Your task to perform on an android device: find which apps use the phone's location Image 0: 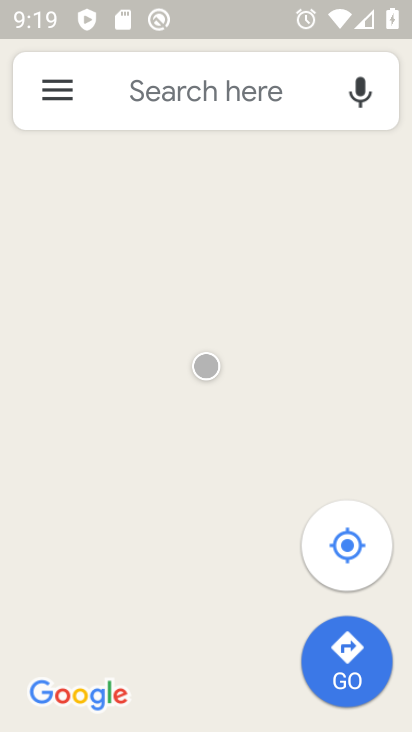
Step 0: press home button
Your task to perform on an android device: find which apps use the phone's location Image 1: 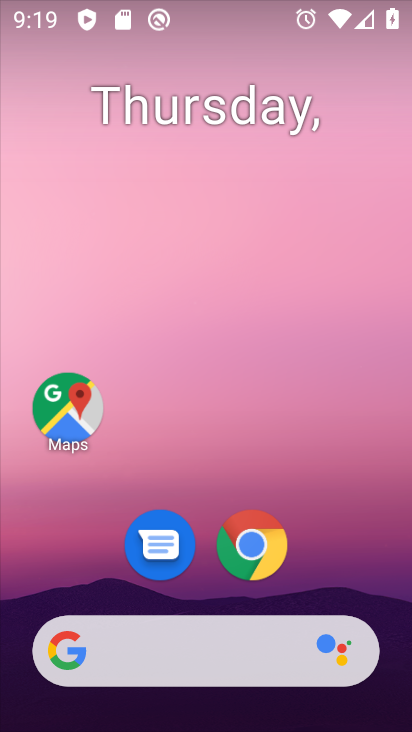
Step 1: drag from (347, 506) to (266, 21)
Your task to perform on an android device: find which apps use the phone's location Image 2: 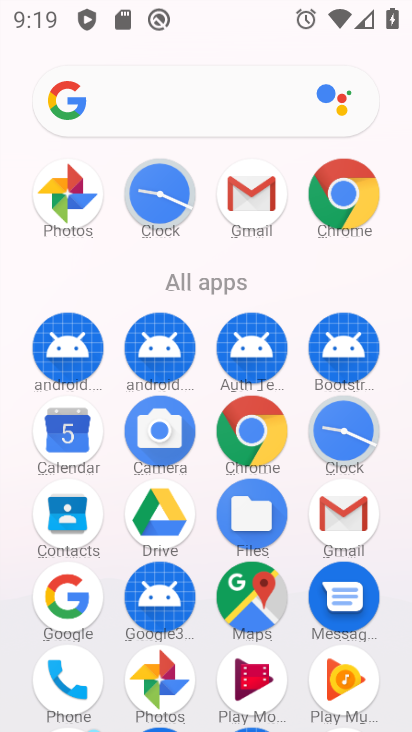
Step 2: drag from (216, 559) to (186, 171)
Your task to perform on an android device: find which apps use the phone's location Image 3: 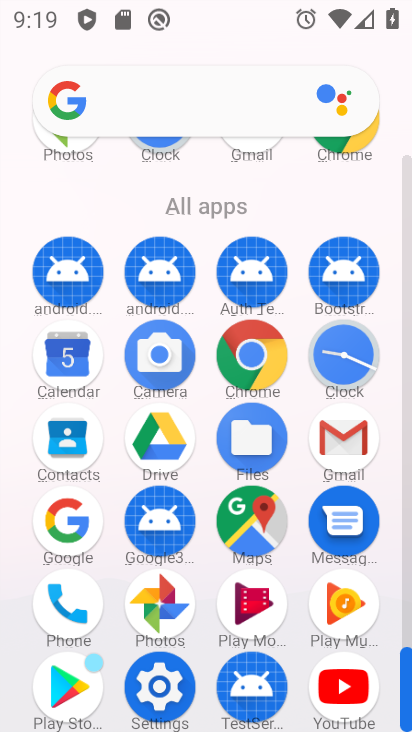
Step 3: click (164, 678)
Your task to perform on an android device: find which apps use the phone's location Image 4: 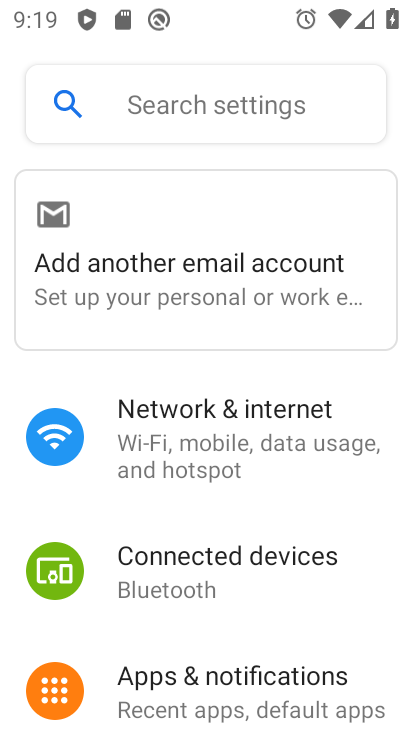
Step 4: drag from (261, 589) to (198, 172)
Your task to perform on an android device: find which apps use the phone's location Image 5: 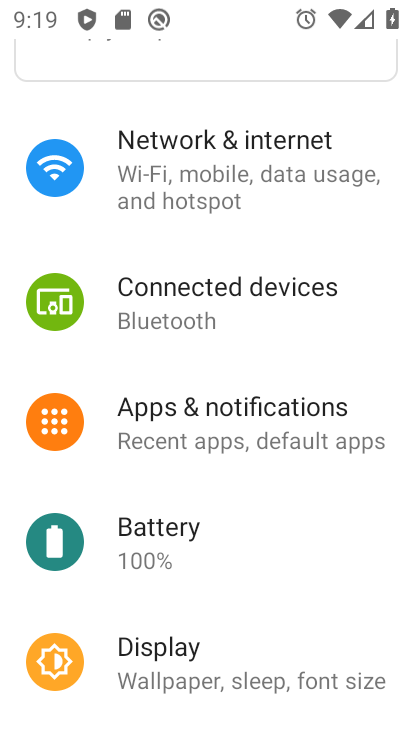
Step 5: drag from (229, 581) to (200, 121)
Your task to perform on an android device: find which apps use the phone's location Image 6: 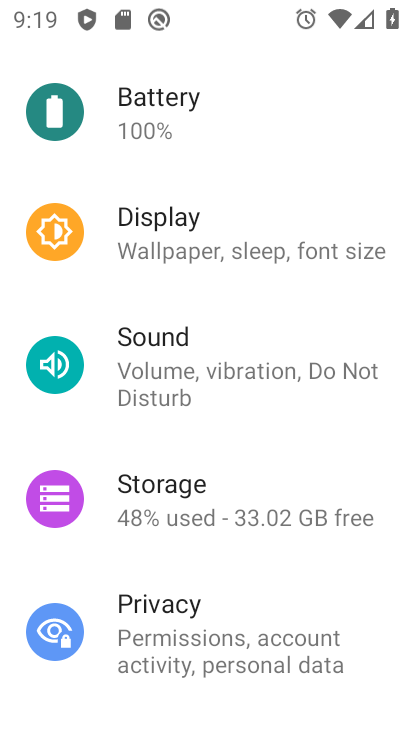
Step 6: drag from (224, 559) to (154, 111)
Your task to perform on an android device: find which apps use the phone's location Image 7: 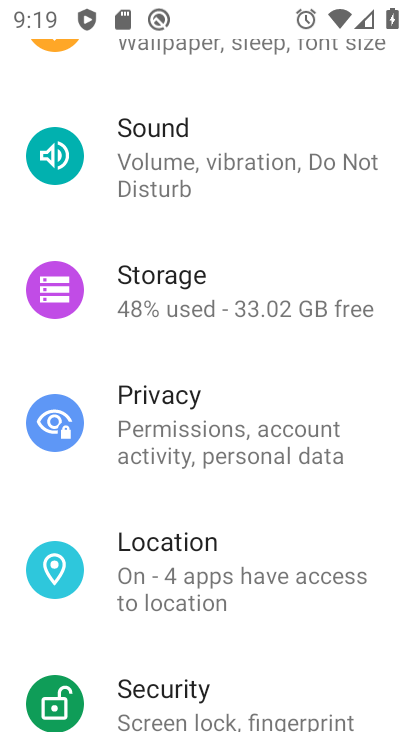
Step 7: click (154, 557)
Your task to perform on an android device: find which apps use the phone's location Image 8: 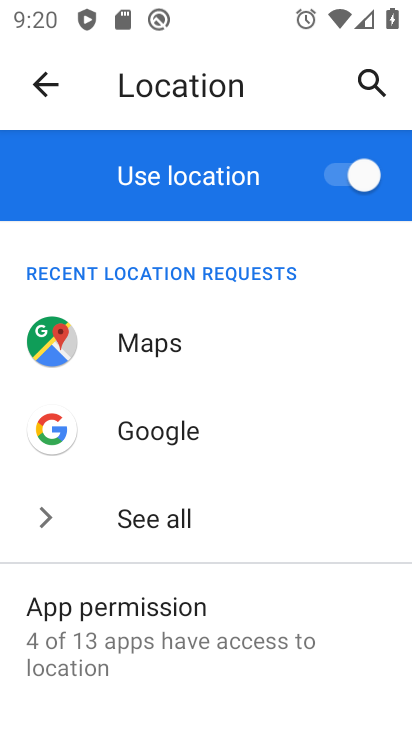
Step 8: click (159, 515)
Your task to perform on an android device: find which apps use the phone's location Image 9: 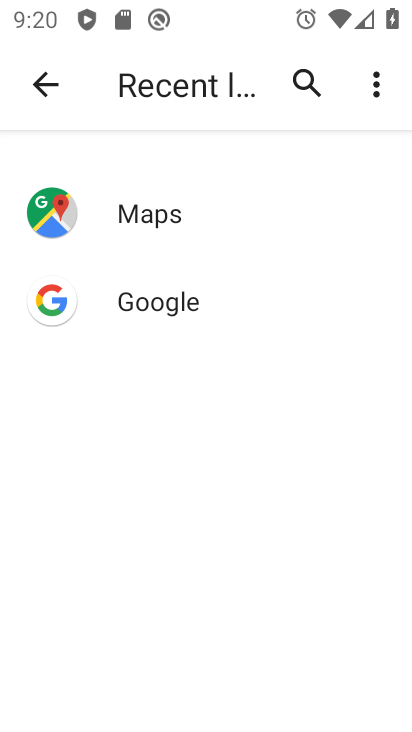
Step 9: task complete